Your task to perform on an android device: What's the weather going to be tomorrow? Image 0: 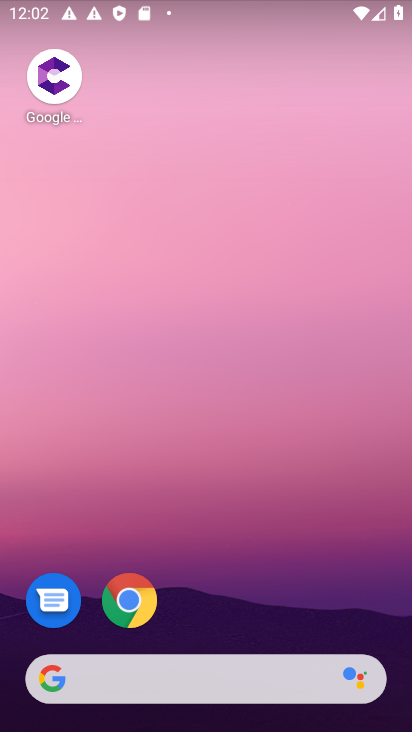
Step 0: click (241, 677)
Your task to perform on an android device: What's the weather going to be tomorrow? Image 1: 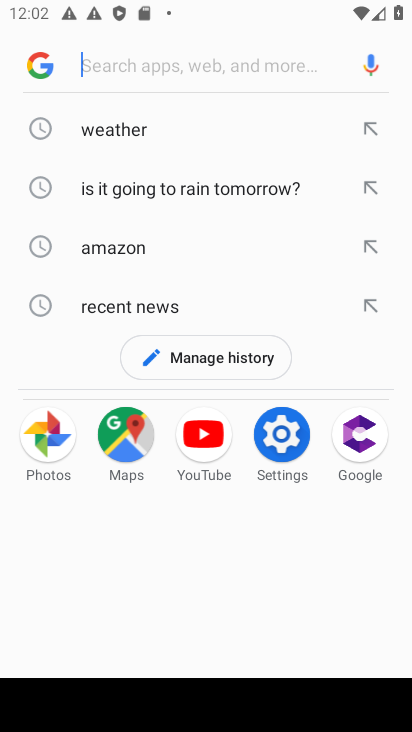
Step 1: type "What's the weather going to be tomorrow?"
Your task to perform on an android device: What's the weather going to be tomorrow? Image 2: 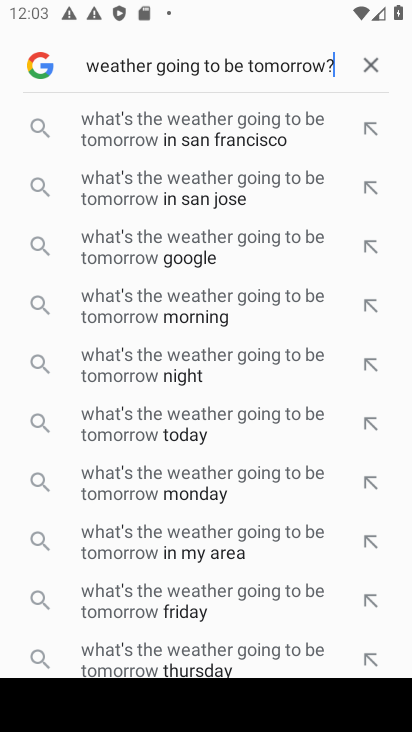
Step 2: task complete